Your task to perform on an android device: Go to Wikipedia Image 0: 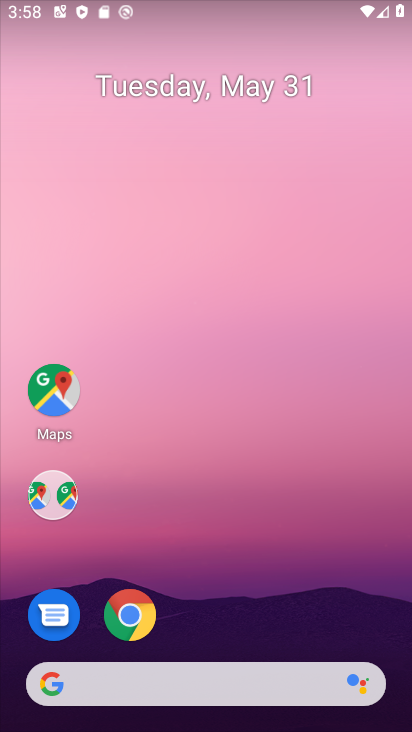
Step 0: drag from (282, 716) to (237, 184)
Your task to perform on an android device: Go to Wikipedia Image 1: 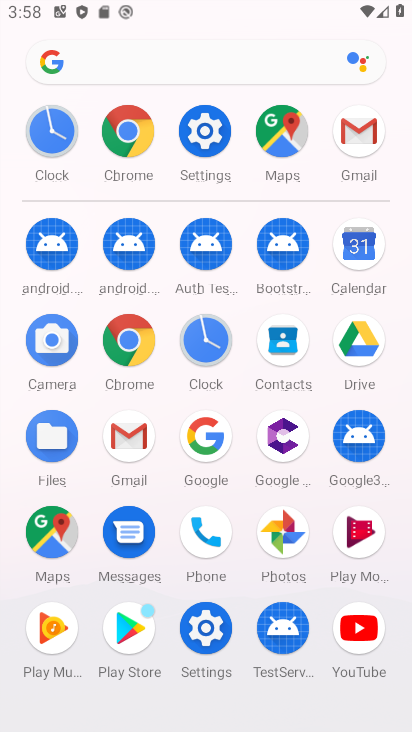
Step 1: click (126, 130)
Your task to perform on an android device: Go to Wikipedia Image 2: 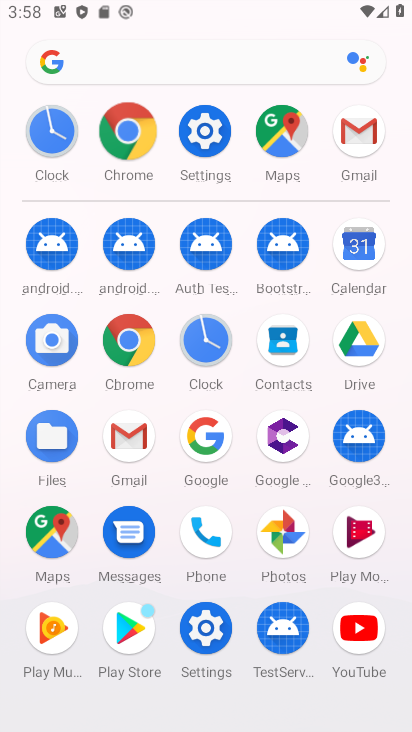
Step 2: click (127, 132)
Your task to perform on an android device: Go to Wikipedia Image 3: 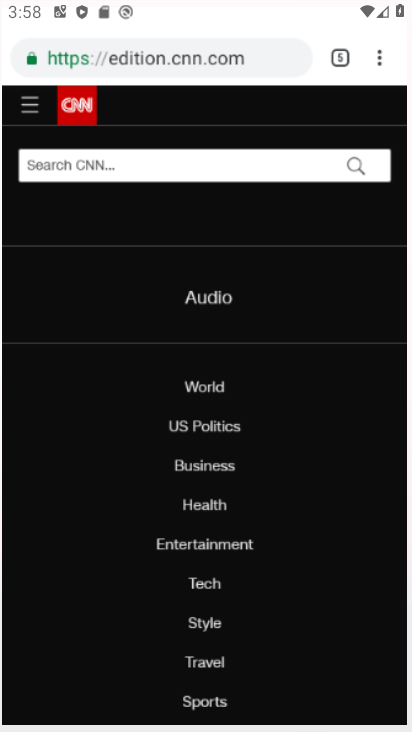
Step 3: click (127, 139)
Your task to perform on an android device: Go to Wikipedia Image 4: 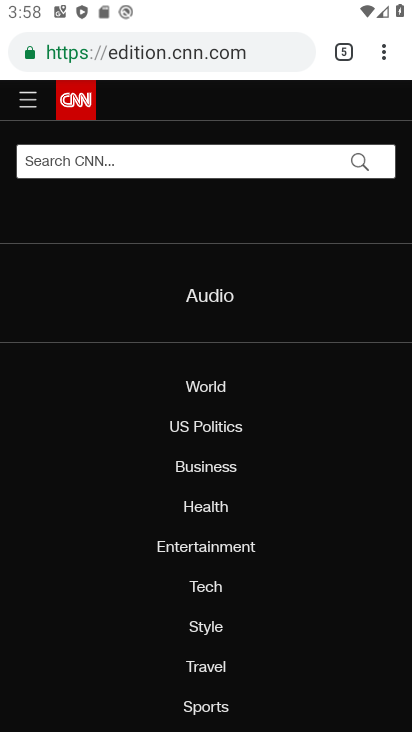
Step 4: click (384, 55)
Your task to perform on an android device: Go to Wikipedia Image 5: 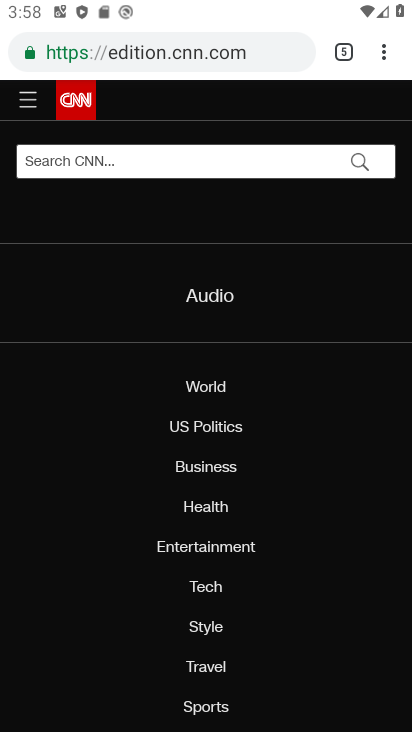
Step 5: drag from (388, 60) to (201, 108)
Your task to perform on an android device: Go to Wikipedia Image 6: 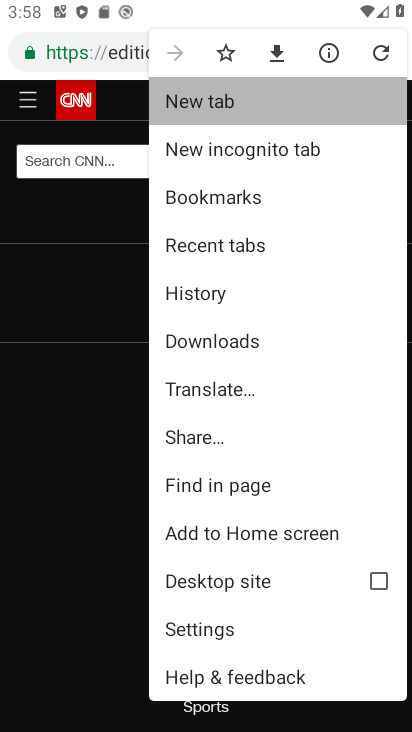
Step 6: click (195, 100)
Your task to perform on an android device: Go to Wikipedia Image 7: 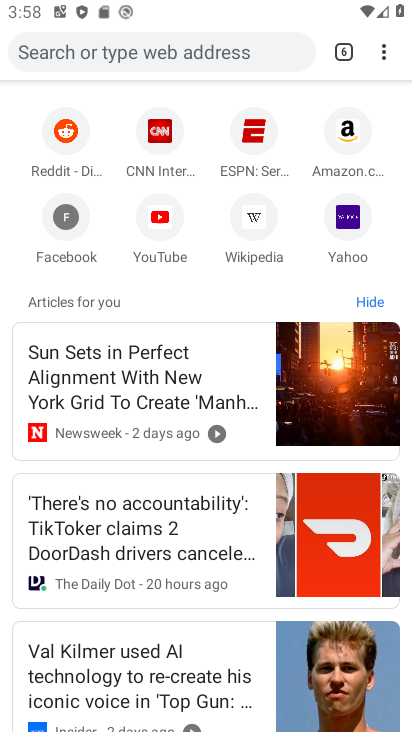
Step 7: click (244, 226)
Your task to perform on an android device: Go to Wikipedia Image 8: 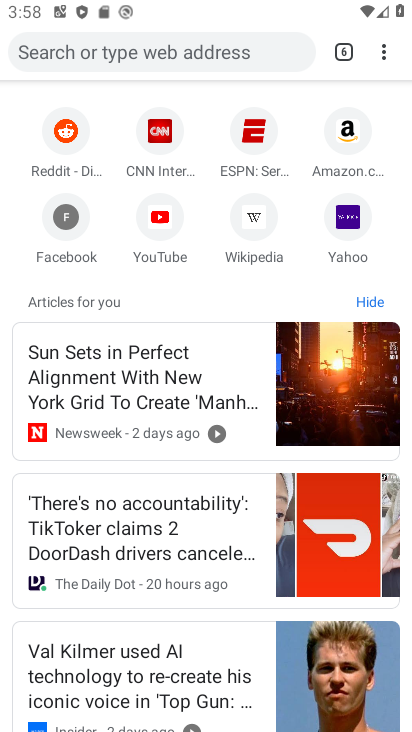
Step 8: click (247, 216)
Your task to perform on an android device: Go to Wikipedia Image 9: 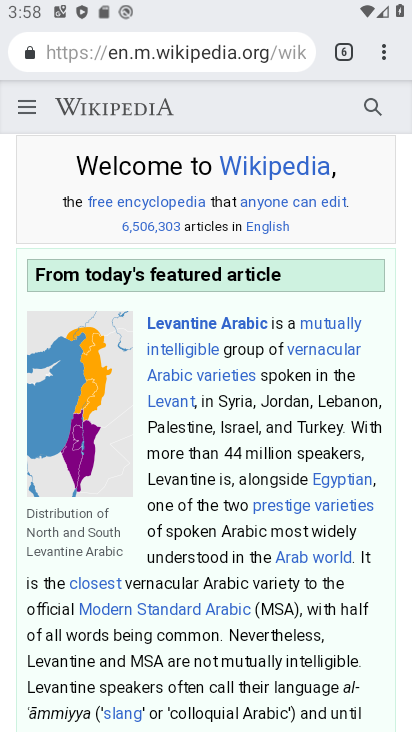
Step 9: task complete